Your task to perform on an android device: View the shopping cart on costco. Add macbook to the cart on costco, then select checkout. Image 0: 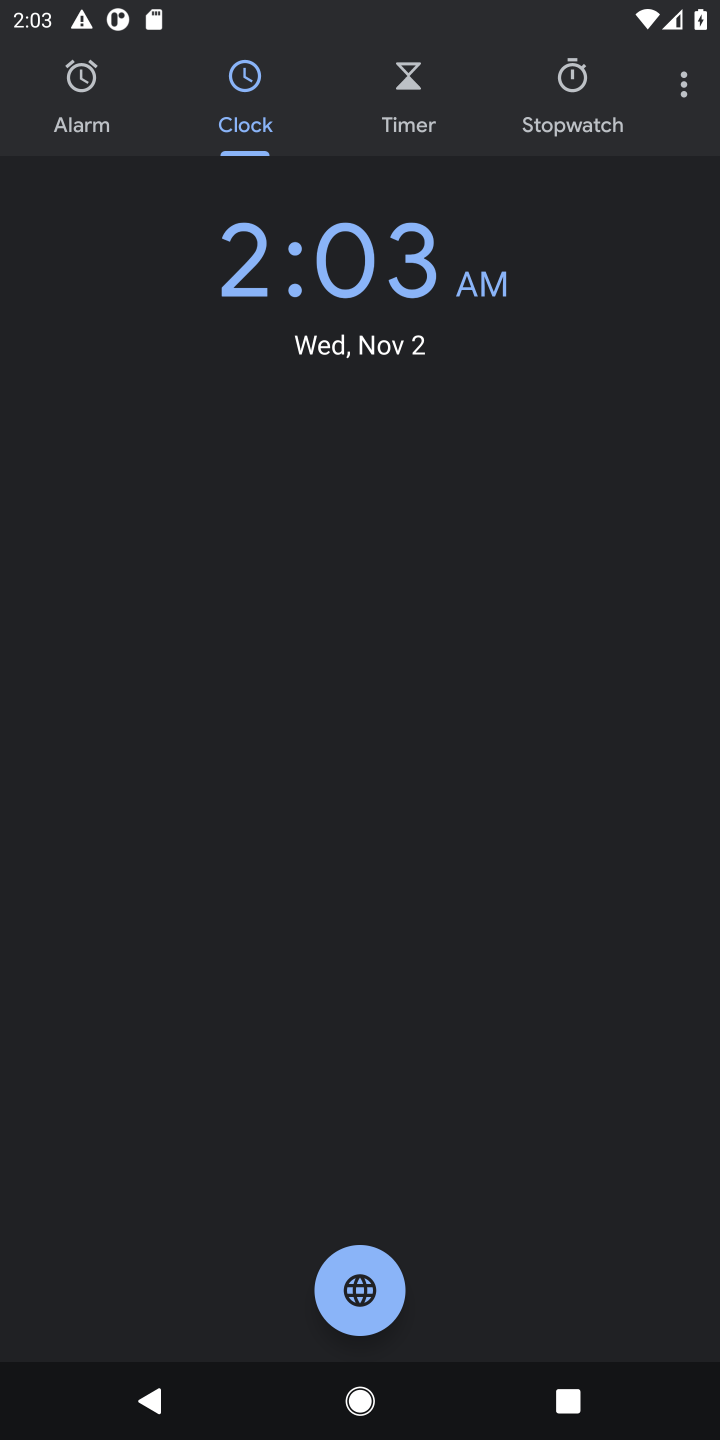
Step 0: press home button
Your task to perform on an android device: View the shopping cart on costco. Add macbook to the cart on costco, then select checkout. Image 1: 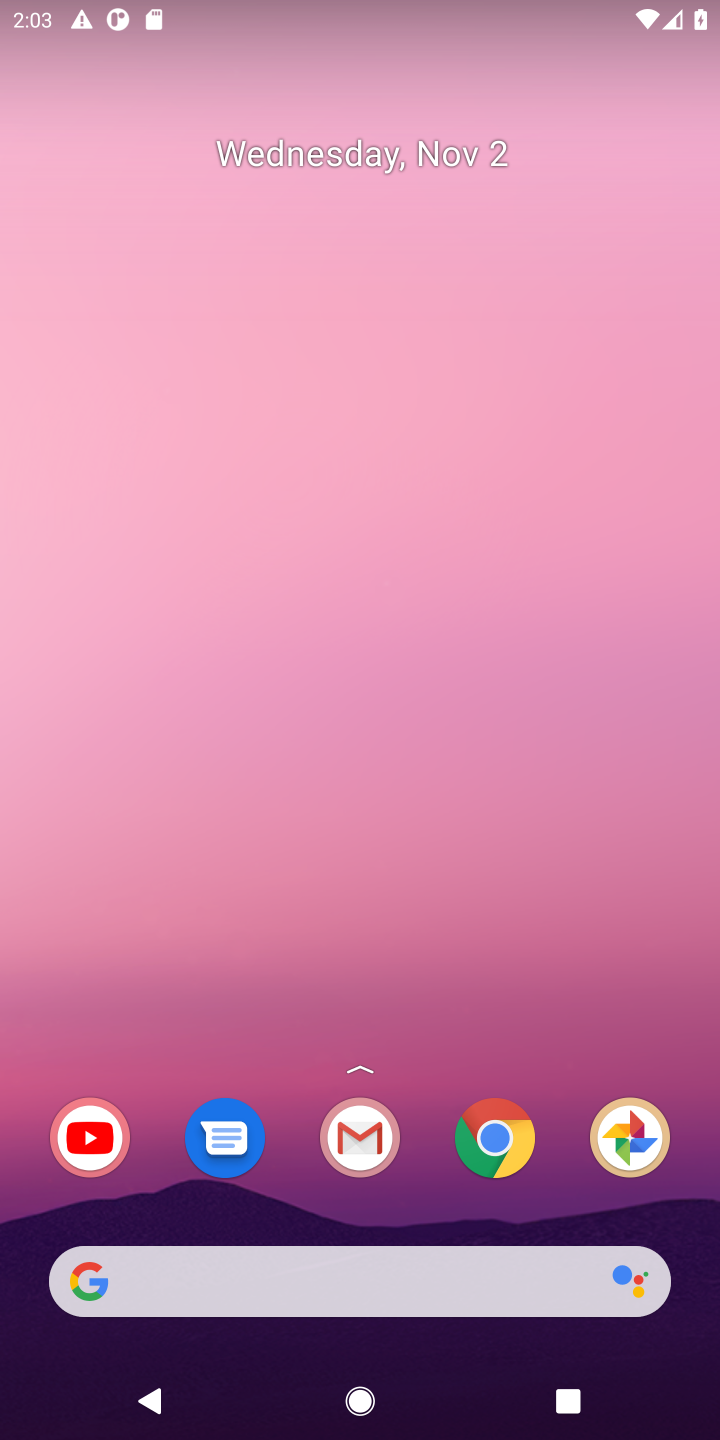
Step 1: click (186, 1271)
Your task to perform on an android device: View the shopping cart on costco. Add macbook to the cart on costco, then select checkout. Image 2: 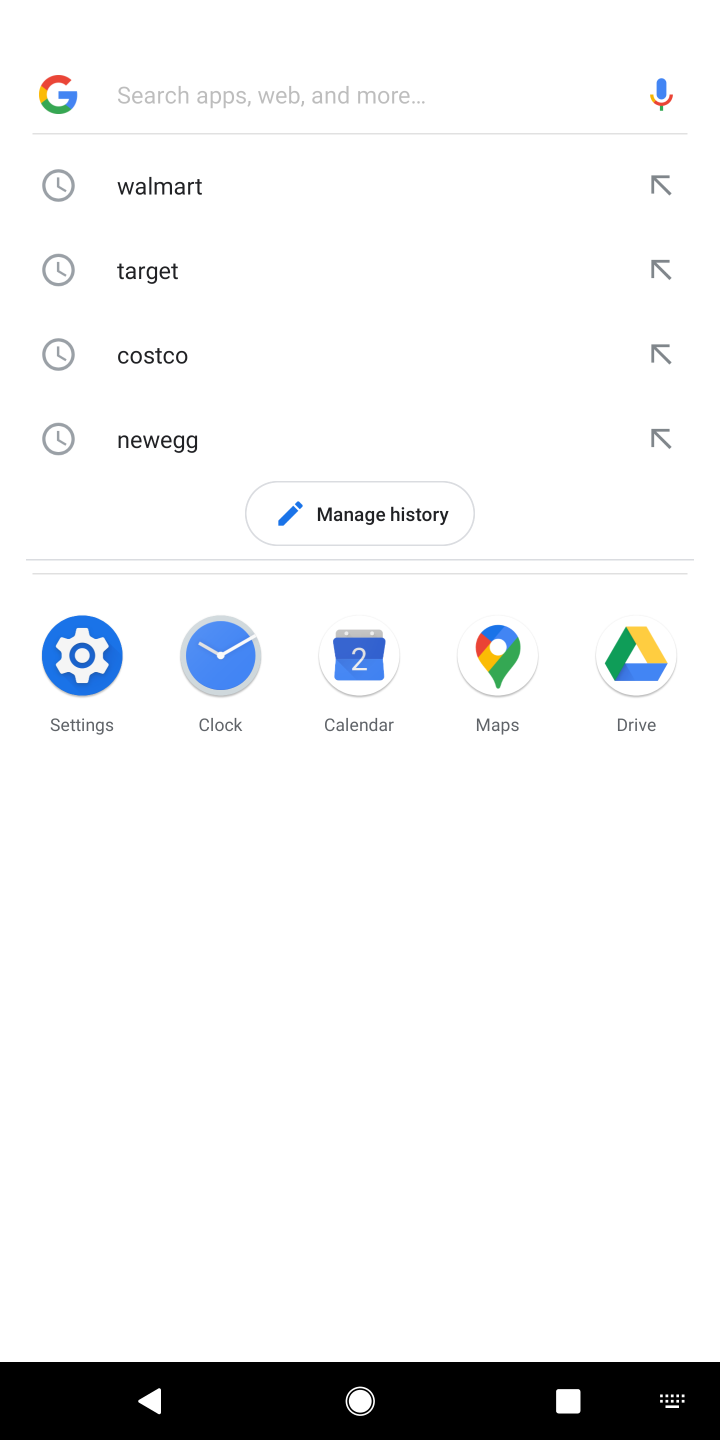
Step 2: type " costco"
Your task to perform on an android device: View the shopping cart on costco. Add macbook to the cart on costco, then select checkout. Image 3: 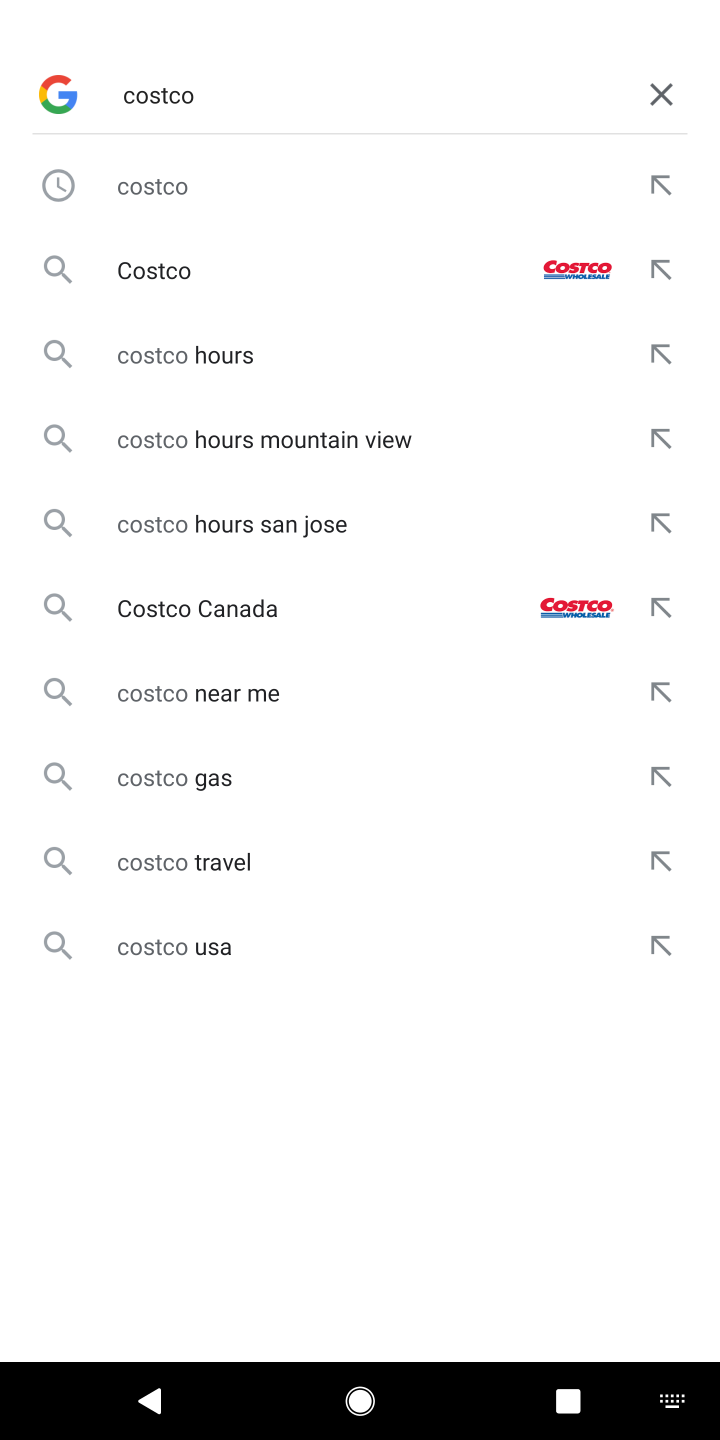
Step 3: press enter
Your task to perform on an android device: View the shopping cart on costco. Add macbook to the cart on costco, then select checkout. Image 4: 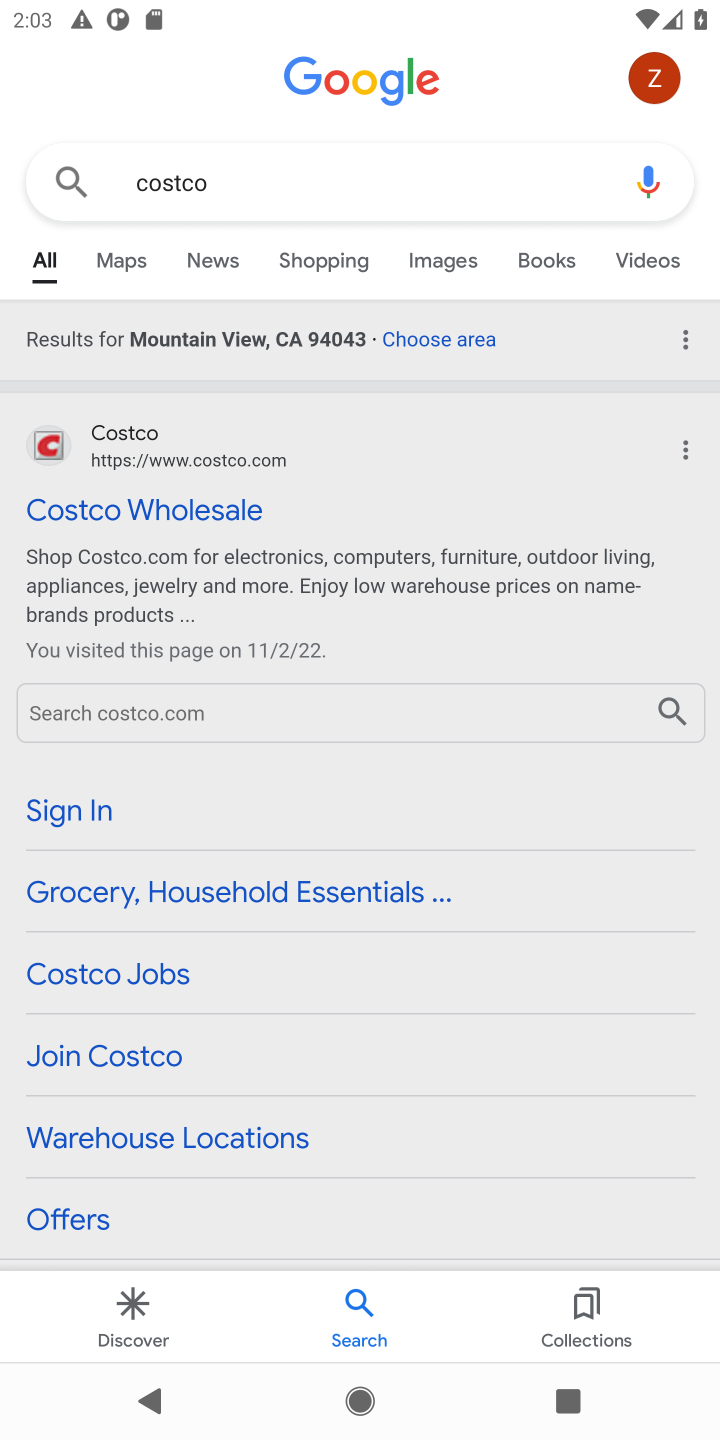
Step 4: click (207, 510)
Your task to perform on an android device: View the shopping cart on costco. Add macbook to the cart on costco, then select checkout. Image 5: 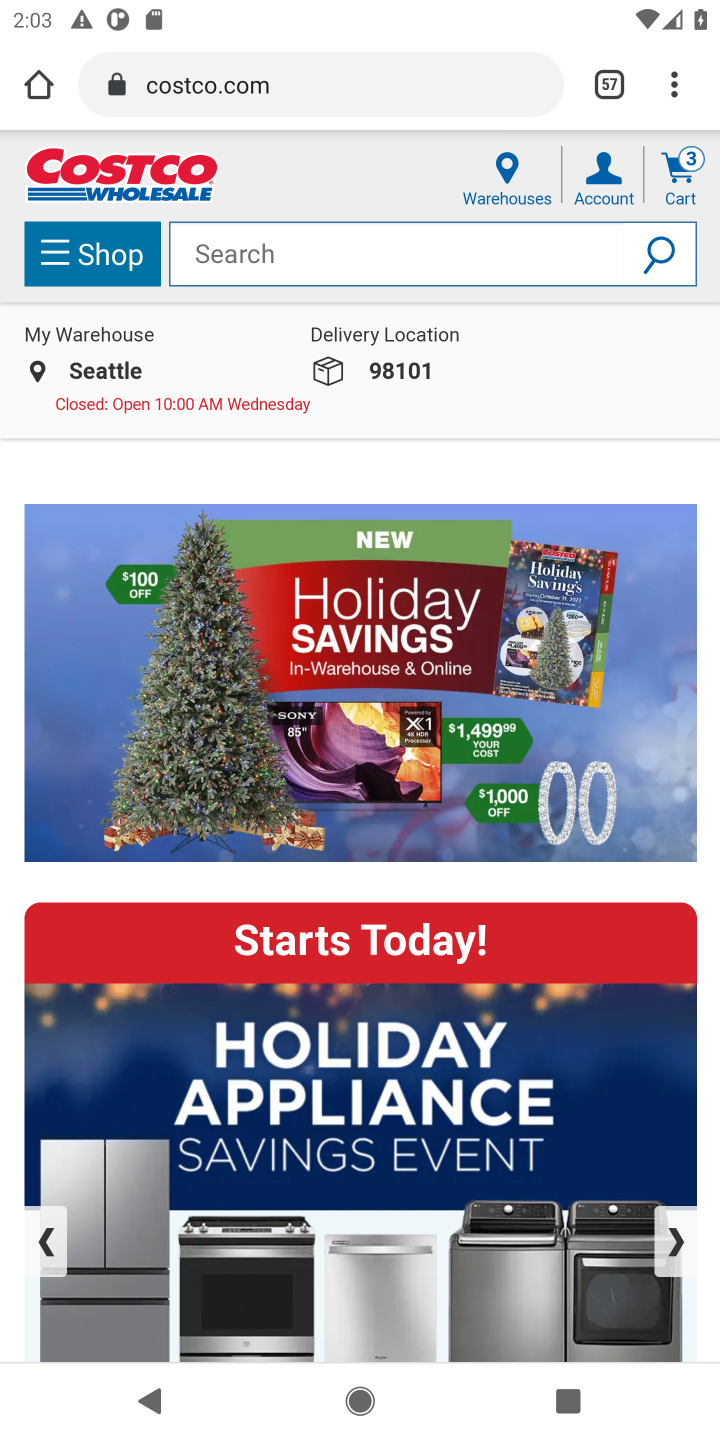
Step 5: click (678, 165)
Your task to perform on an android device: View the shopping cart on costco. Add macbook to the cart on costco, then select checkout. Image 6: 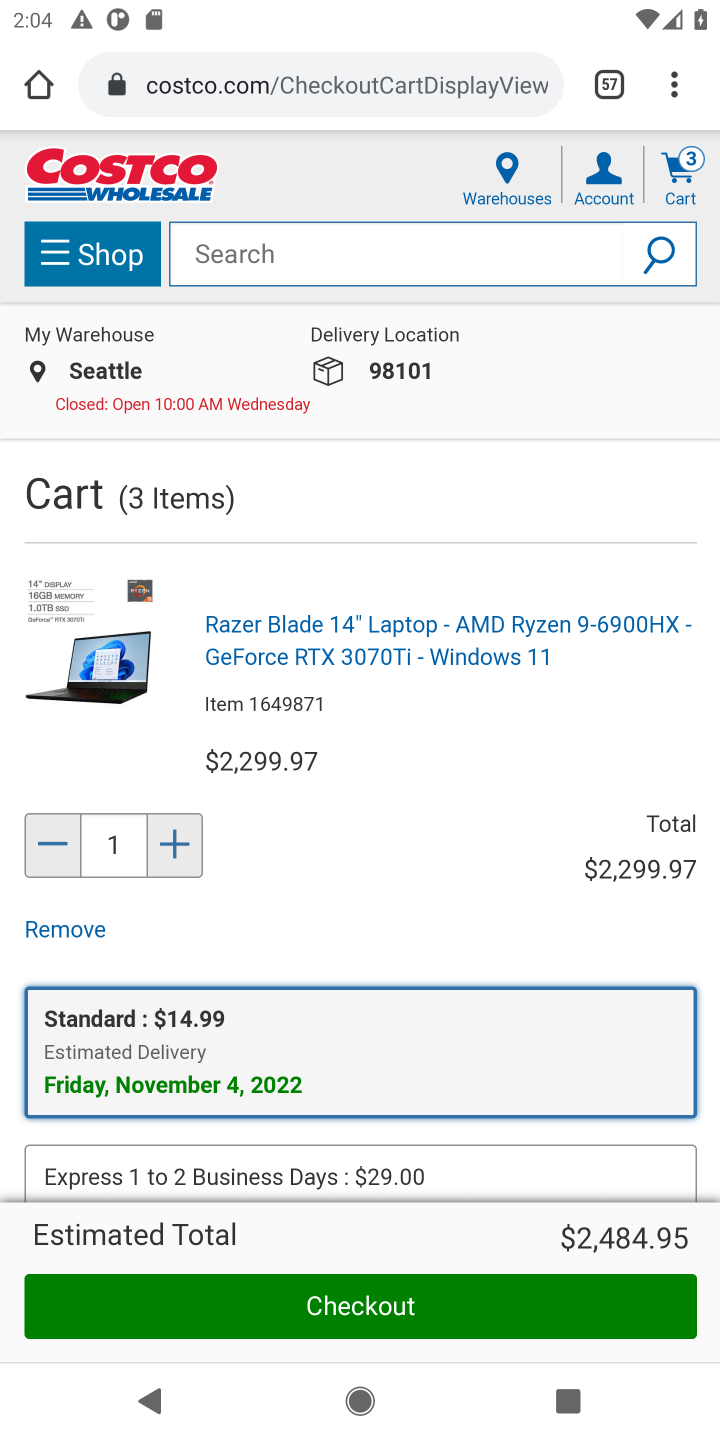
Step 6: click (259, 248)
Your task to perform on an android device: View the shopping cart on costco. Add macbook to the cart on costco, then select checkout. Image 7: 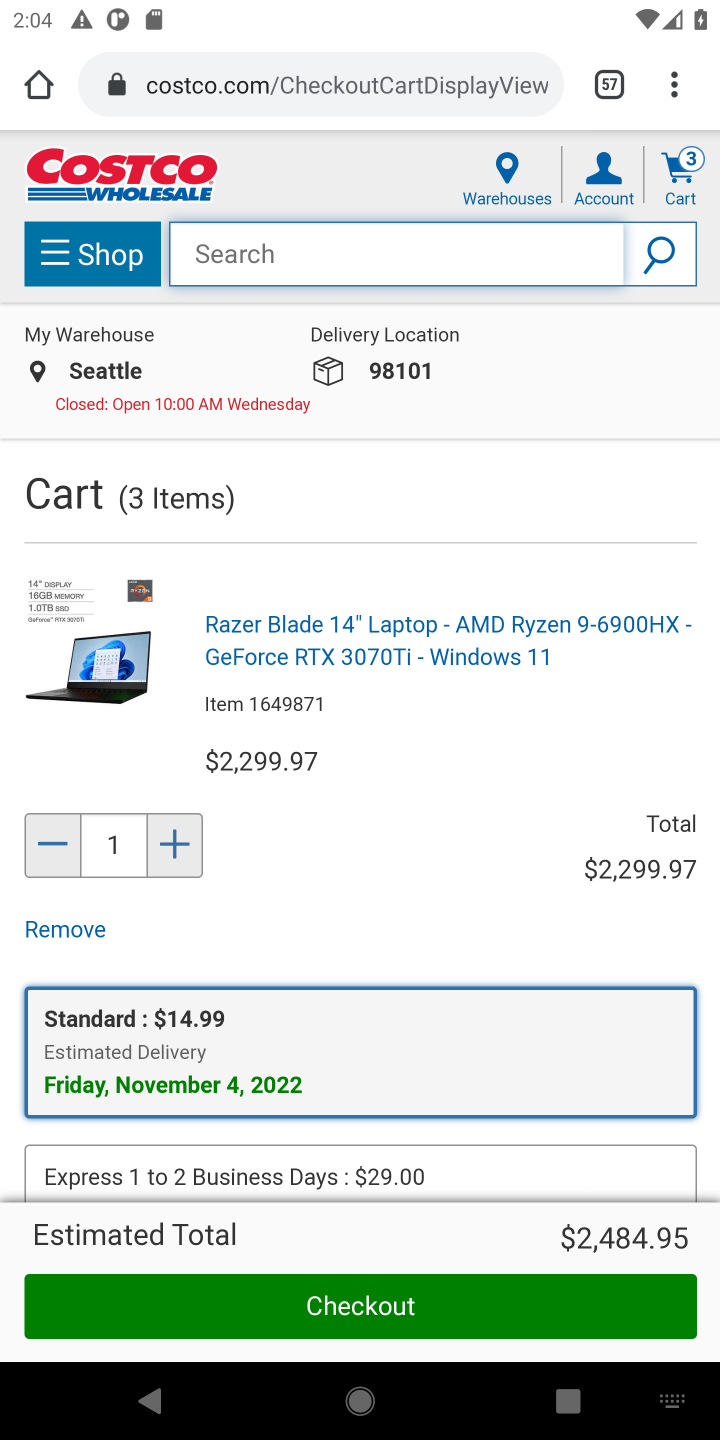
Step 7: type "macbook"
Your task to perform on an android device: View the shopping cart on costco. Add macbook to the cart on costco, then select checkout. Image 8: 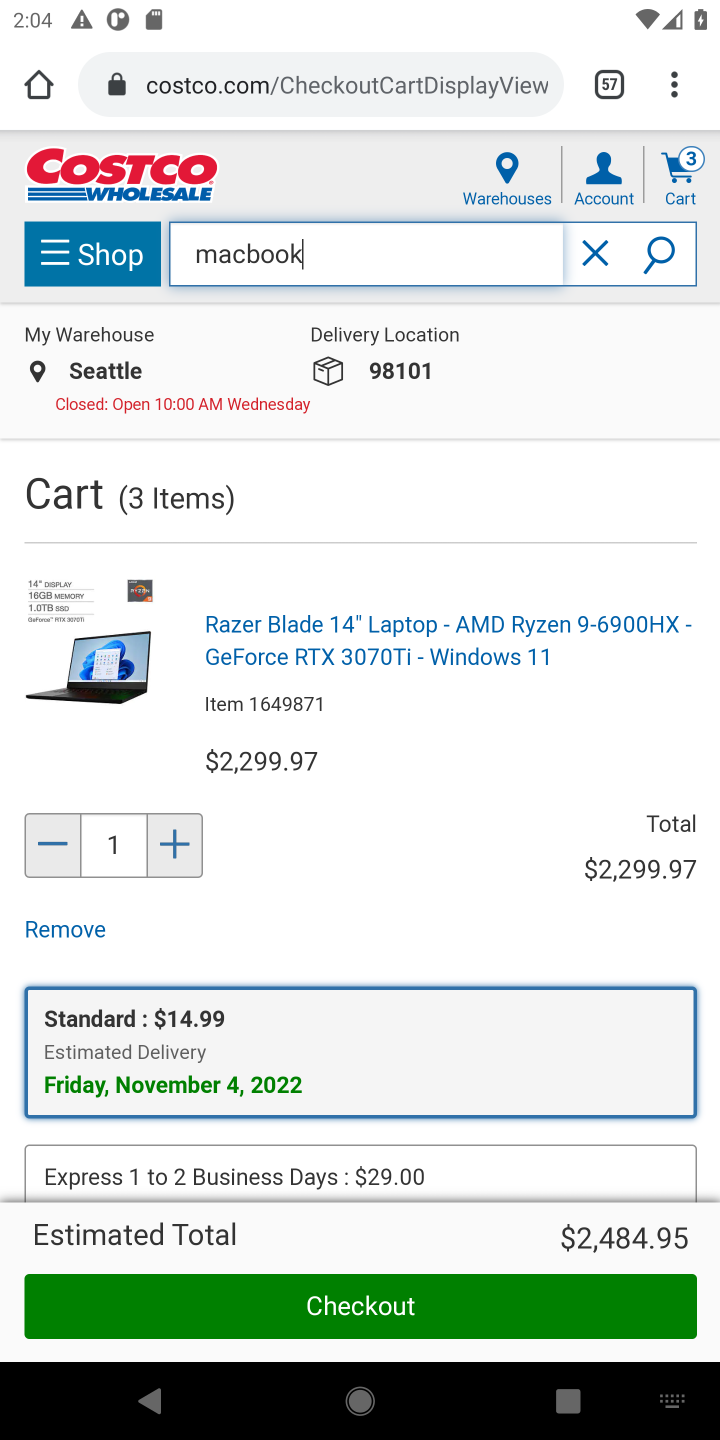
Step 8: press enter
Your task to perform on an android device: View the shopping cart on costco. Add macbook to the cart on costco, then select checkout. Image 9: 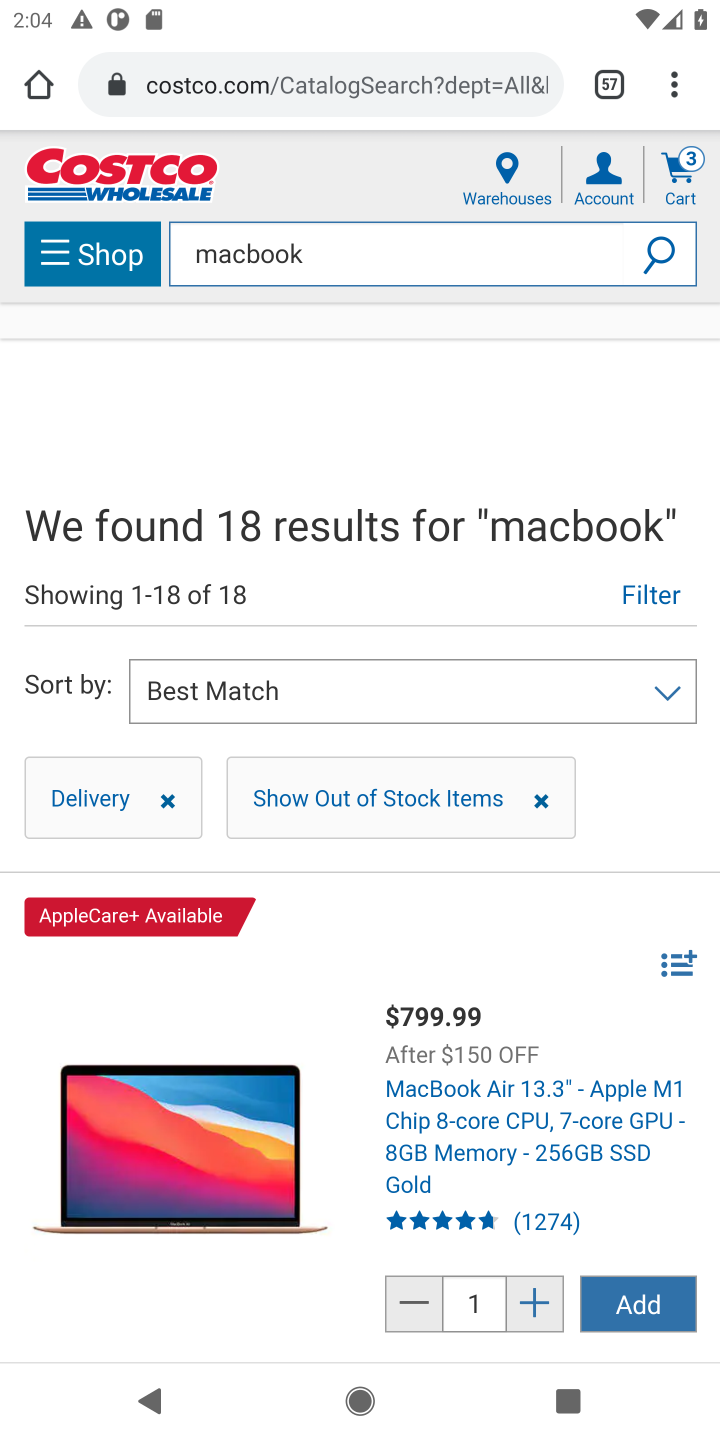
Step 9: drag from (430, 1008) to (451, 672)
Your task to perform on an android device: View the shopping cart on costco. Add macbook to the cart on costco, then select checkout. Image 10: 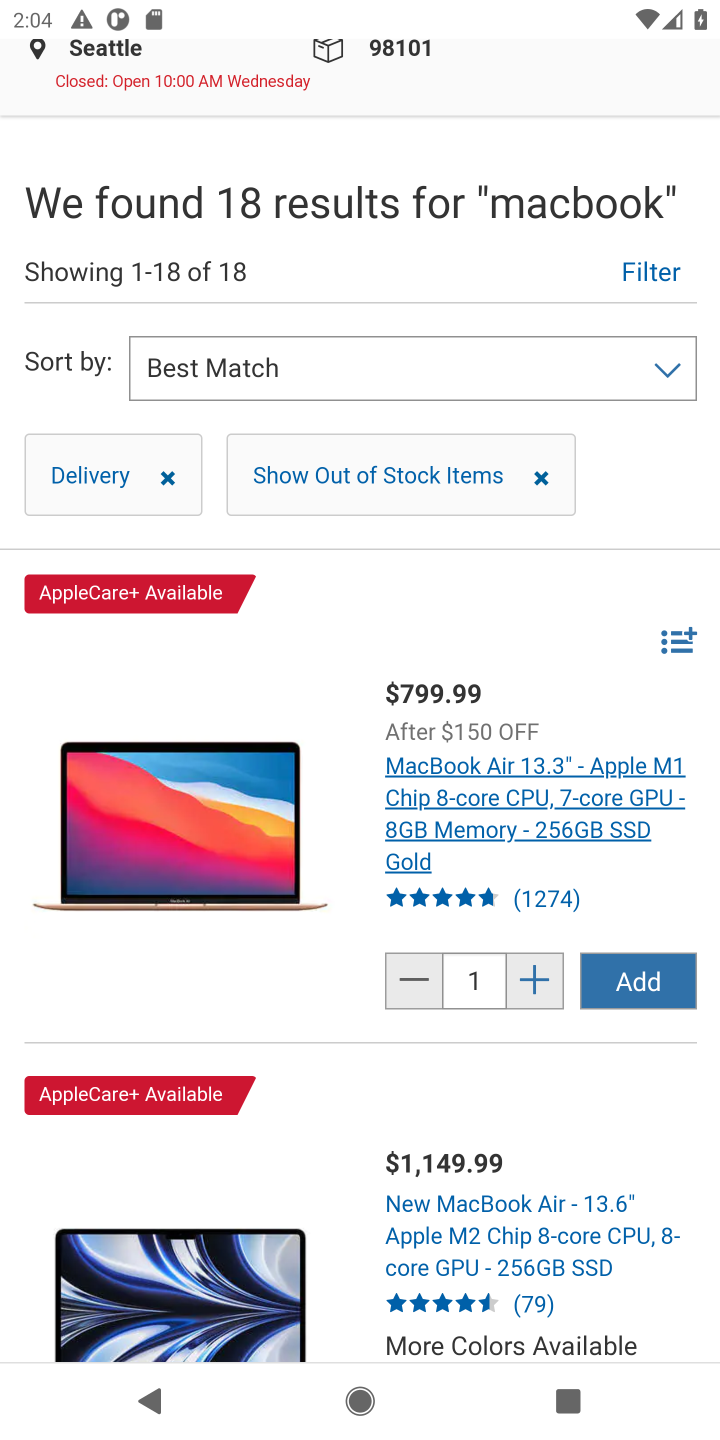
Step 10: click (656, 987)
Your task to perform on an android device: View the shopping cart on costco. Add macbook to the cart on costco, then select checkout. Image 11: 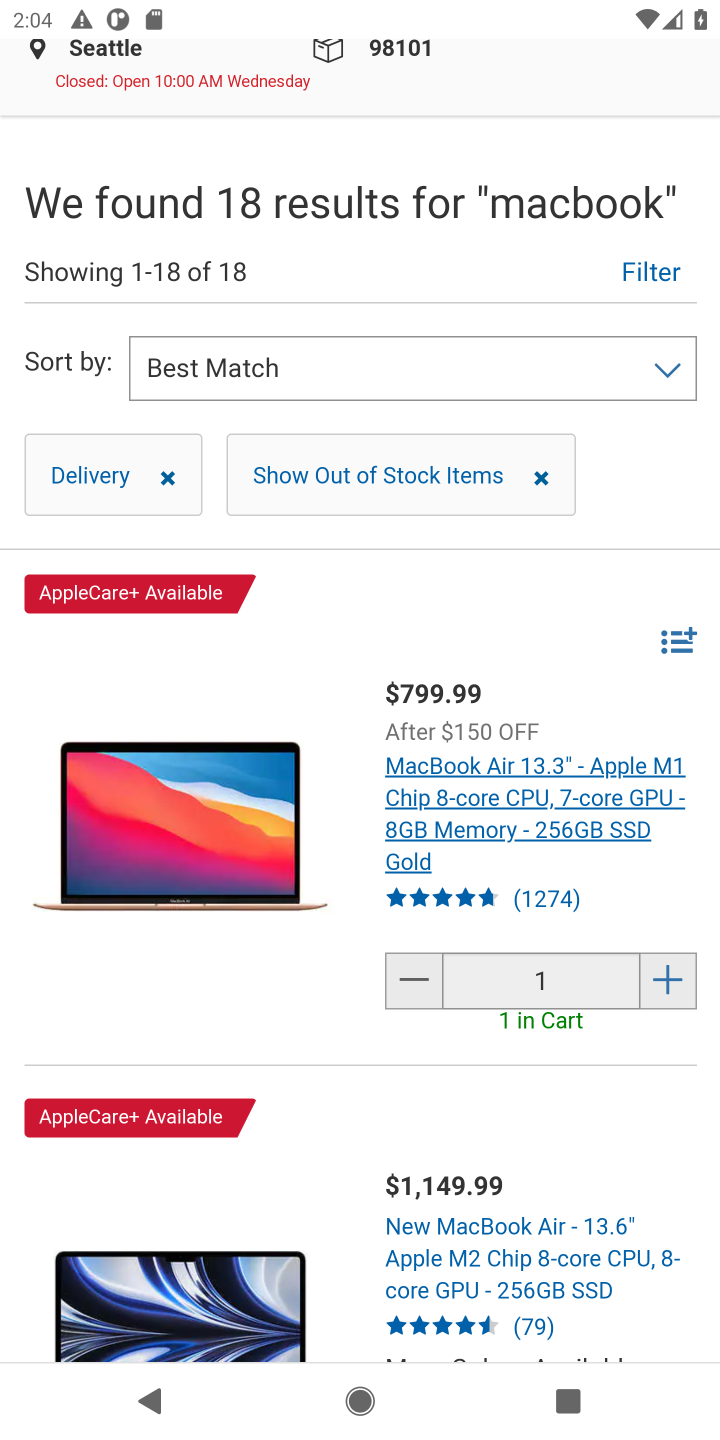
Step 11: drag from (619, 489) to (608, 987)
Your task to perform on an android device: View the shopping cart on costco. Add macbook to the cart on costco, then select checkout. Image 12: 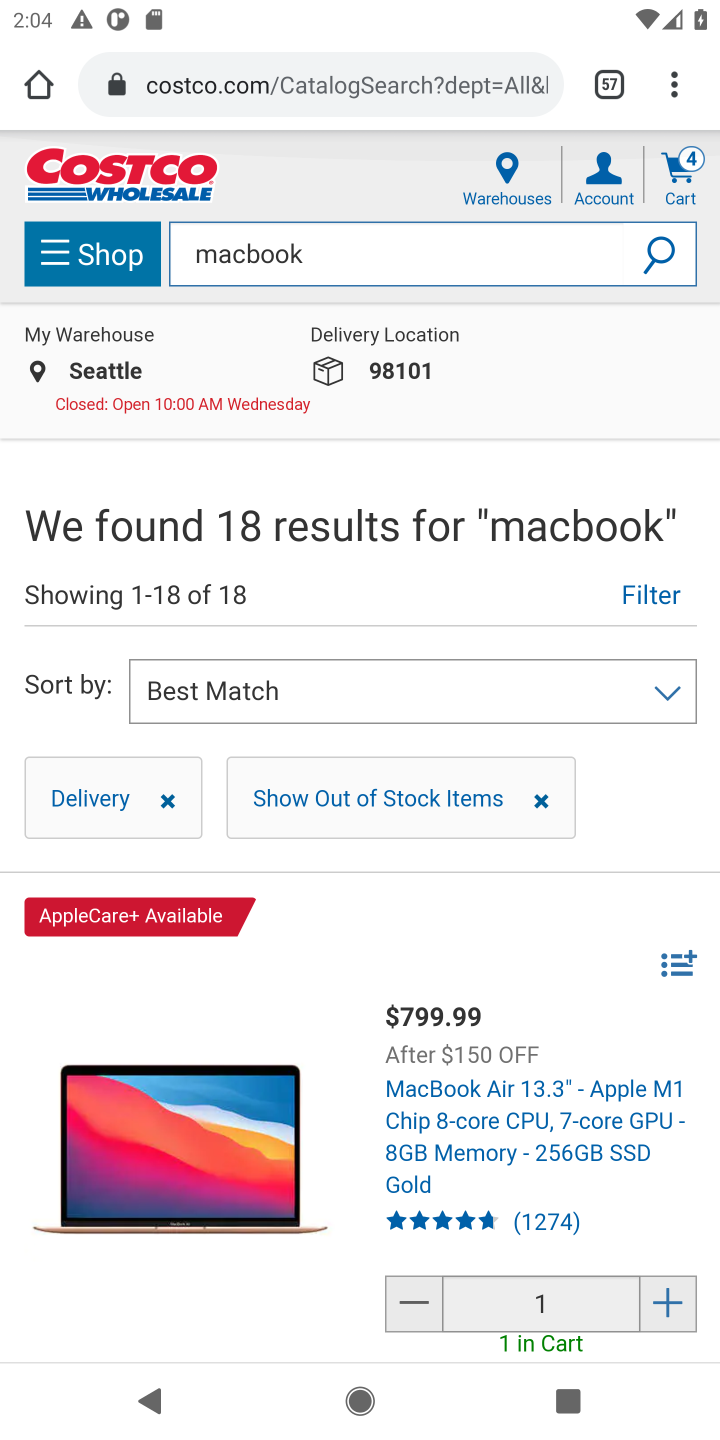
Step 12: click (686, 172)
Your task to perform on an android device: View the shopping cart on costco. Add macbook to the cart on costco, then select checkout. Image 13: 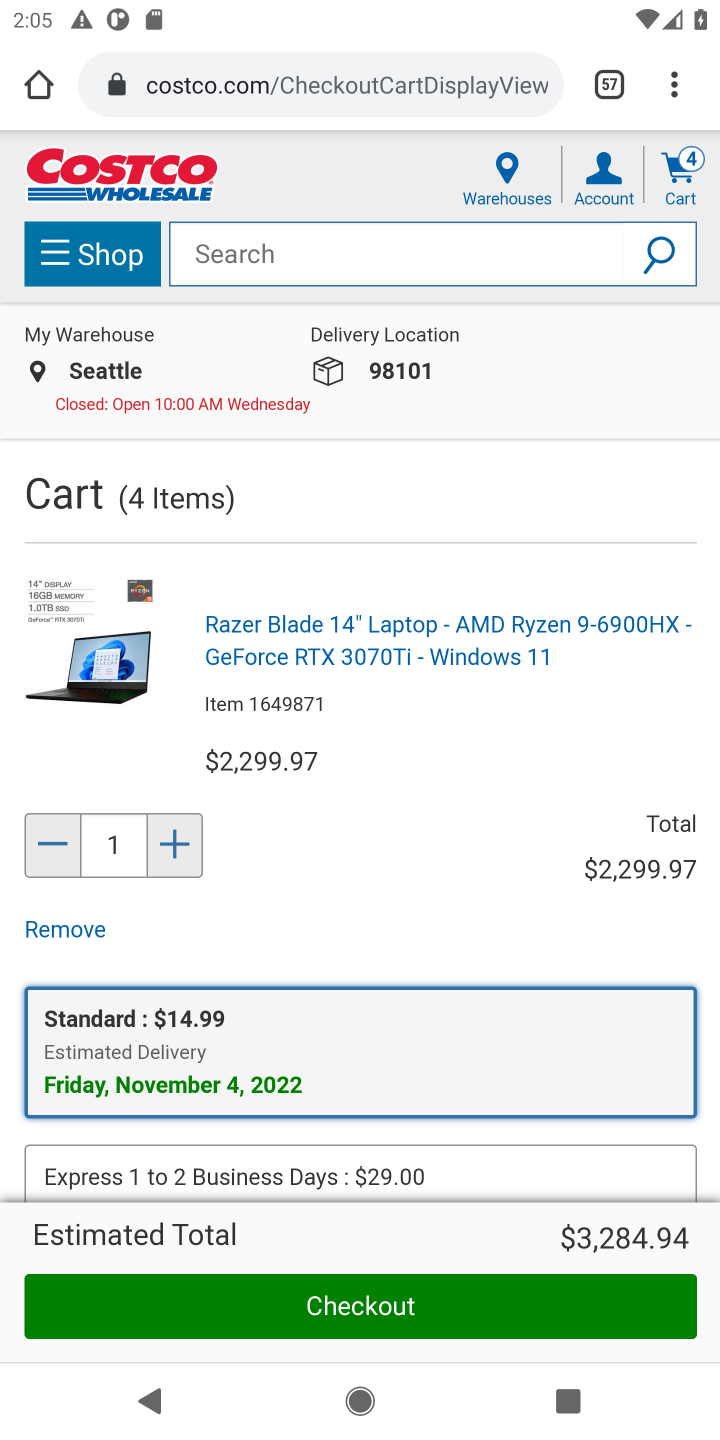
Step 13: click (367, 1313)
Your task to perform on an android device: View the shopping cart on costco. Add macbook to the cart on costco, then select checkout. Image 14: 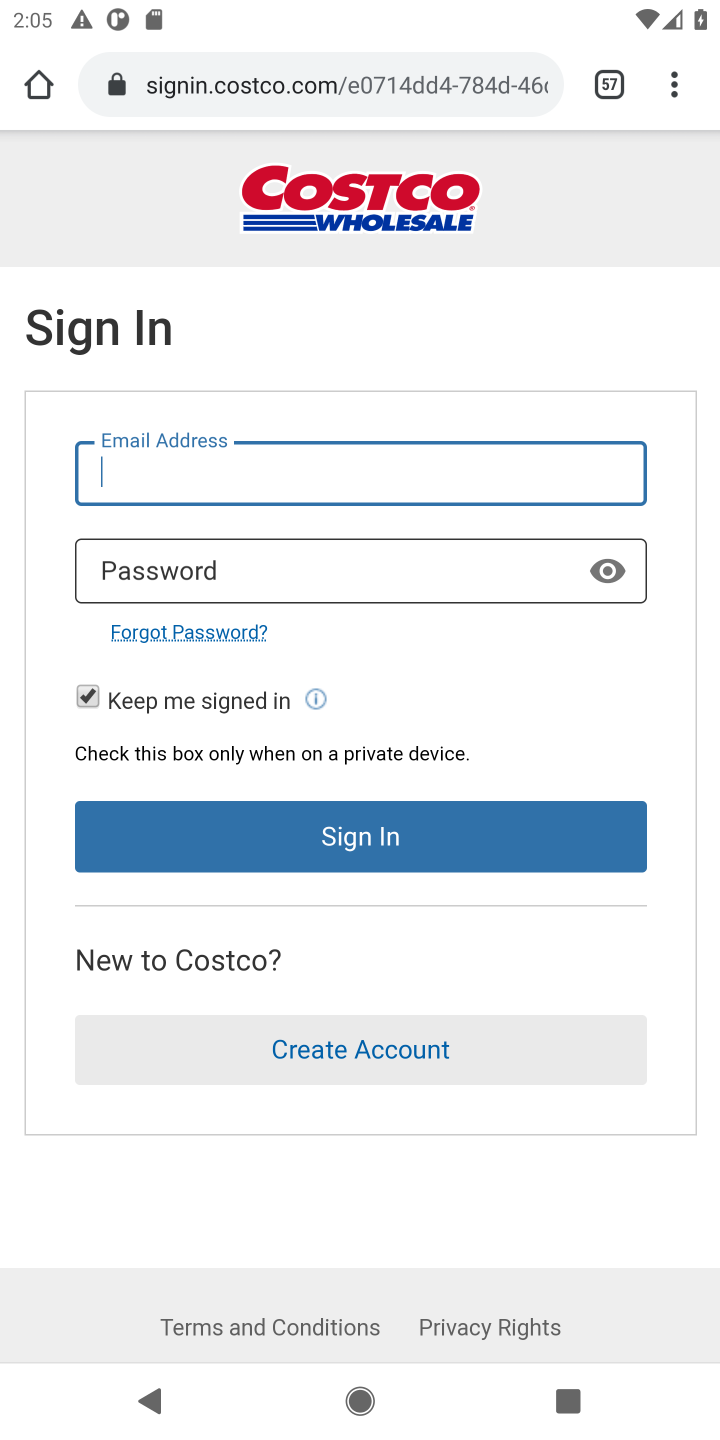
Step 14: task complete